Your task to perform on an android device: Go to Yahoo.com Image 0: 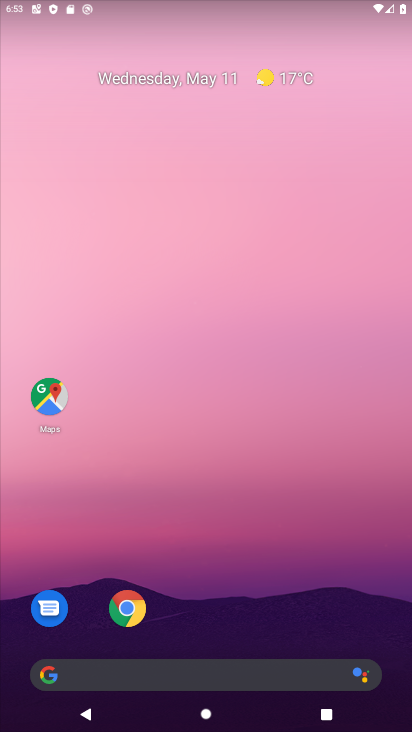
Step 0: drag from (191, 629) to (217, 228)
Your task to perform on an android device: Go to Yahoo.com Image 1: 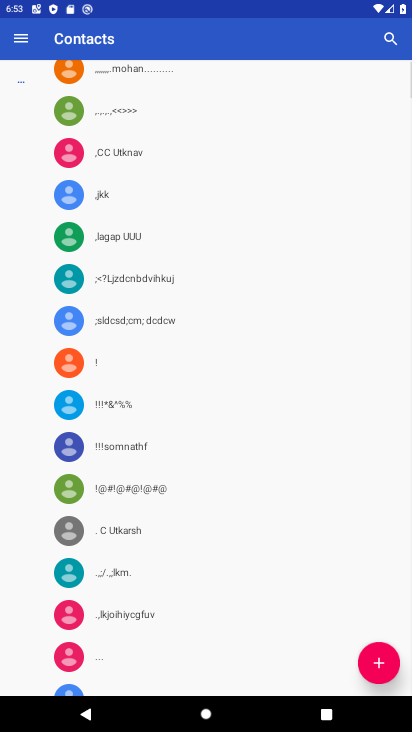
Step 1: press home button
Your task to perform on an android device: Go to Yahoo.com Image 2: 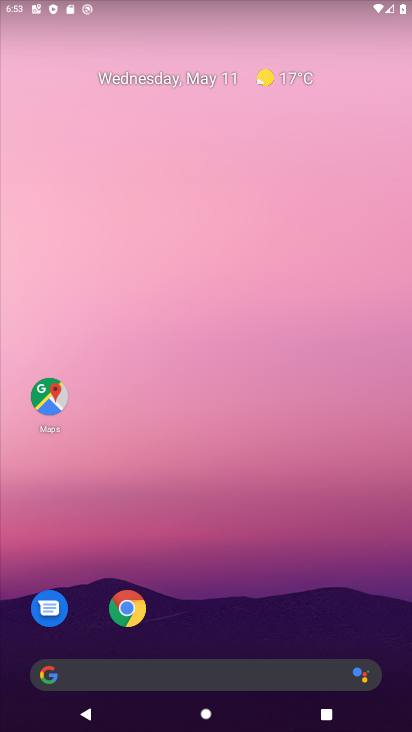
Step 2: click (124, 600)
Your task to perform on an android device: Go to Yahoo.com Image 3: 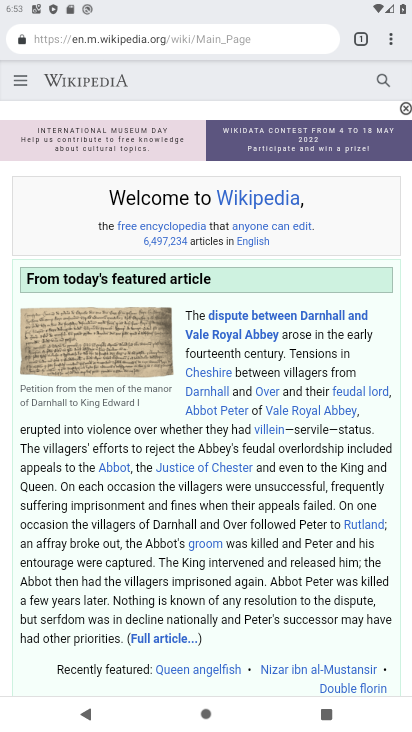
Step 3: click (238, 38)
Your task to perform on an android device: Go to Yahoo.com Image 4: 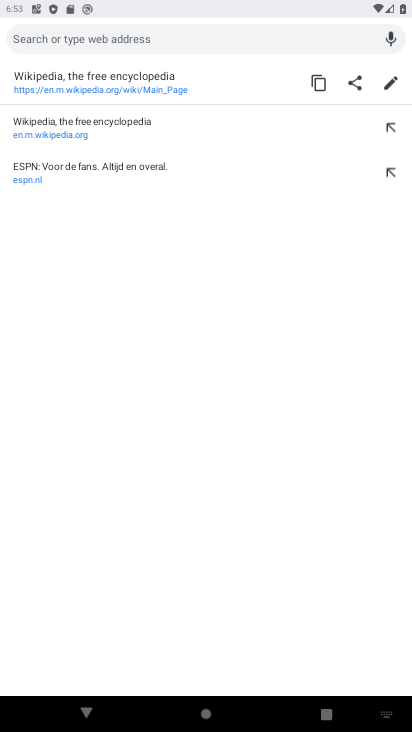
Step 4: type "yahoo.com"
Your task to perform on an android device: Go to Yahoo.com Image 5: 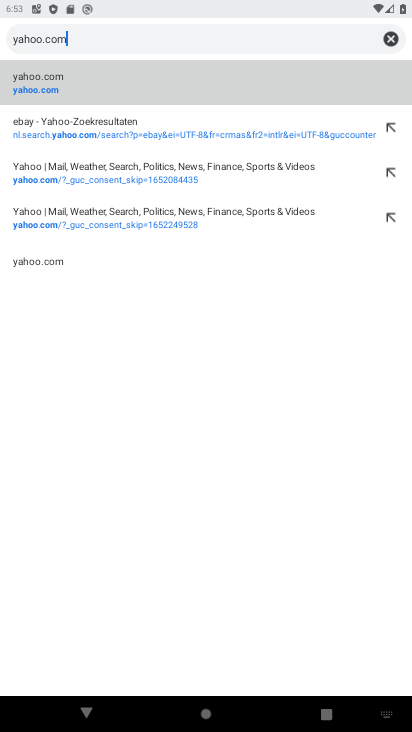
Step 5: click (92, 108)
Your task to perform on an android device: Go to Yahoo.com Image 6: 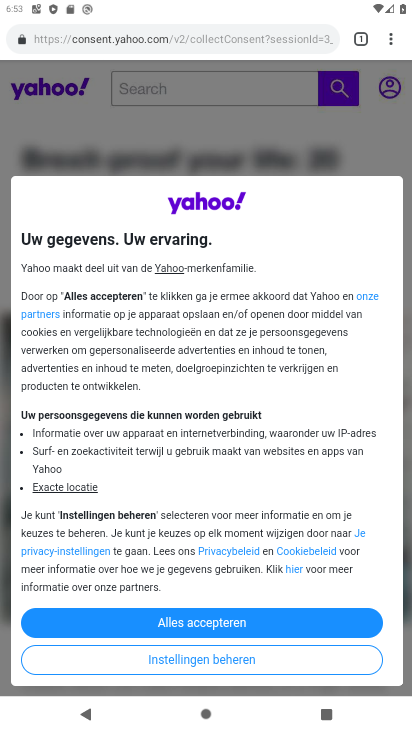
Step 6: click (180, 36)
Your task to perform on an android device: Go to Yahoo.com Image 7: 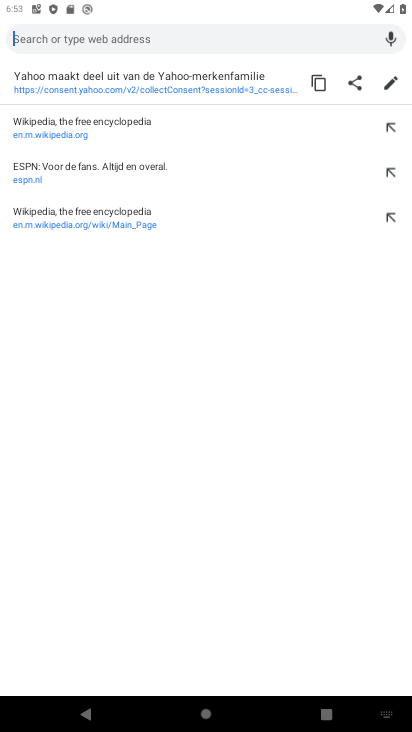
Step 7: task complete